Your task to perform on an android device: uninstall "VLC for Android" Image 0: 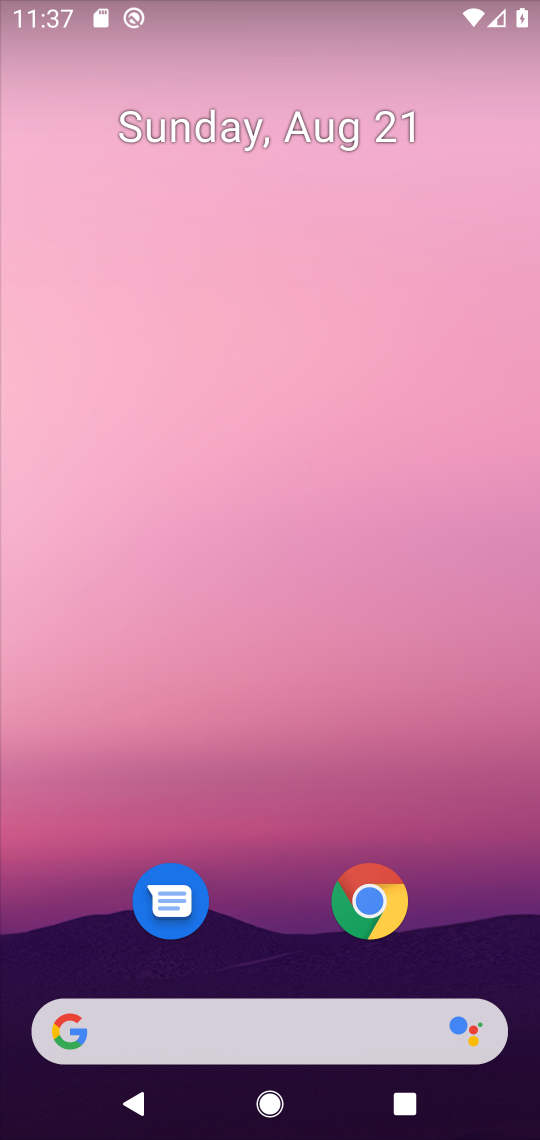
Step 0: drag from (254, 960) to (301, 54)
Your task to perform on an android device: uninstall "VLC for Android" Image 1: 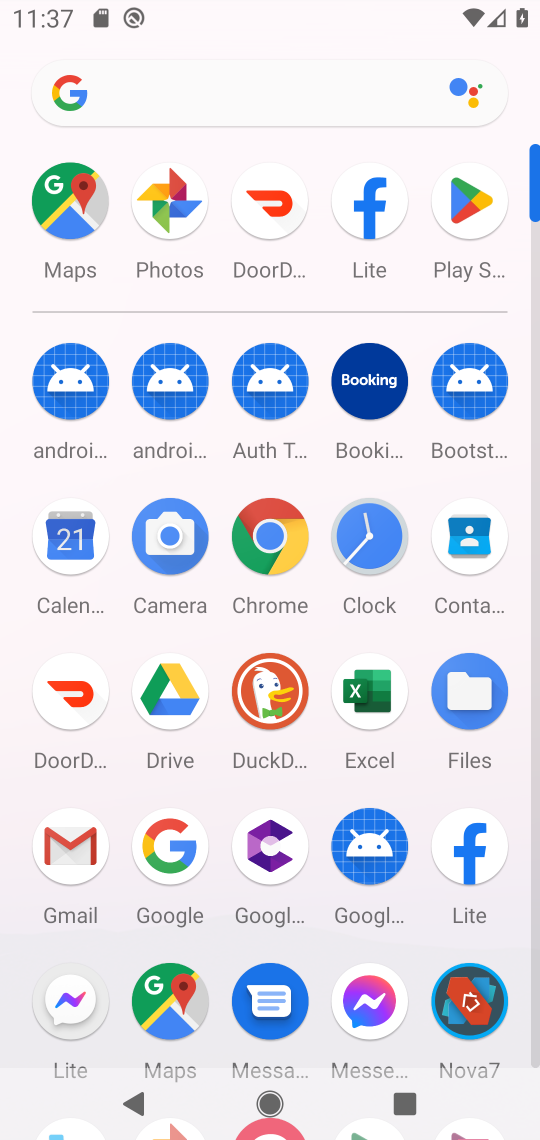
Step 1: click (459, 228)
Your task to perform on an android device: uninstall "VLC for Android" Image 2: 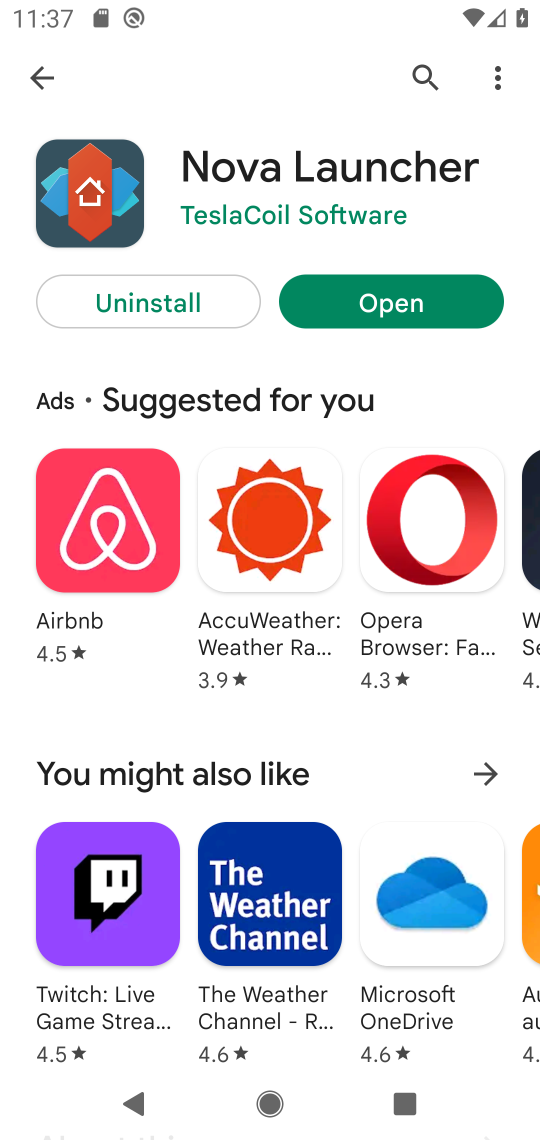
Step 2: click (414, 79)
Your task to perform on an android device: uninstall "VLC for Android" Image 3: 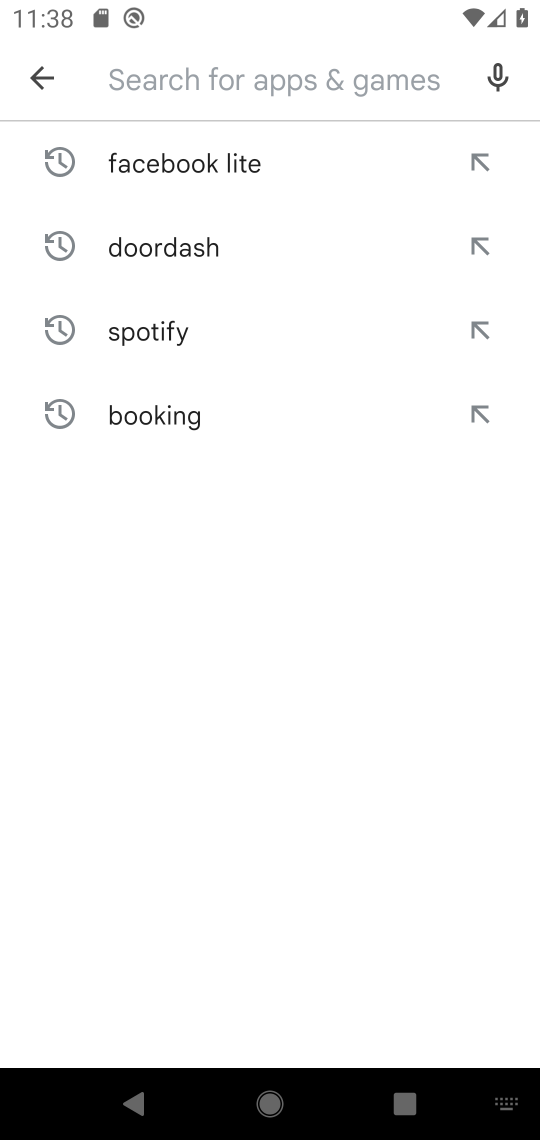
Step 3: type "vlc"
Your task to perform on an android device: uninstall "VLC for Android" Image 4: 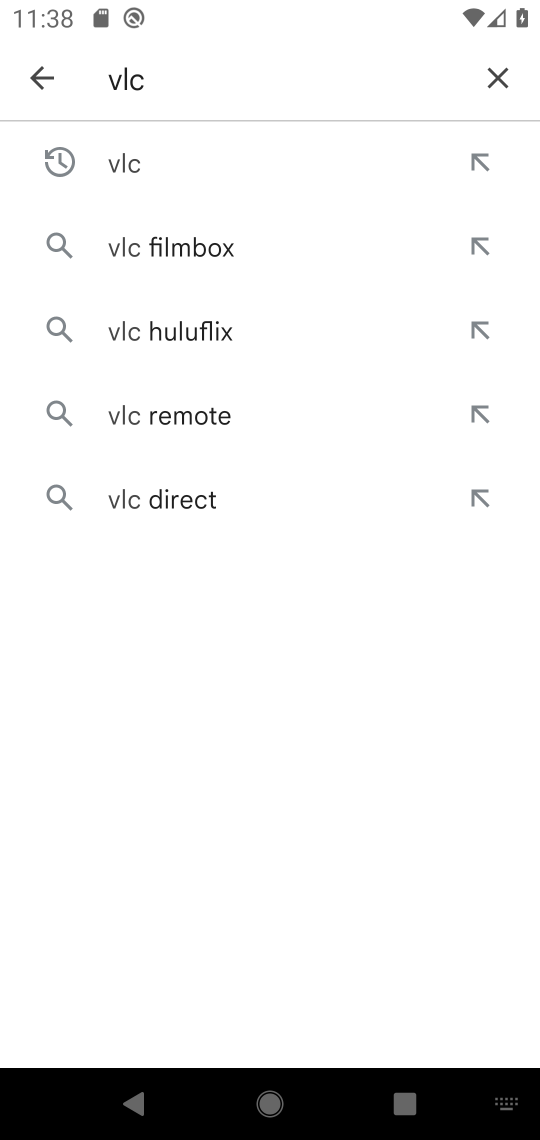
Step 4: click (151, 146)
Your task to perform on an android device: uninstall "VLC for Android" Image 5: 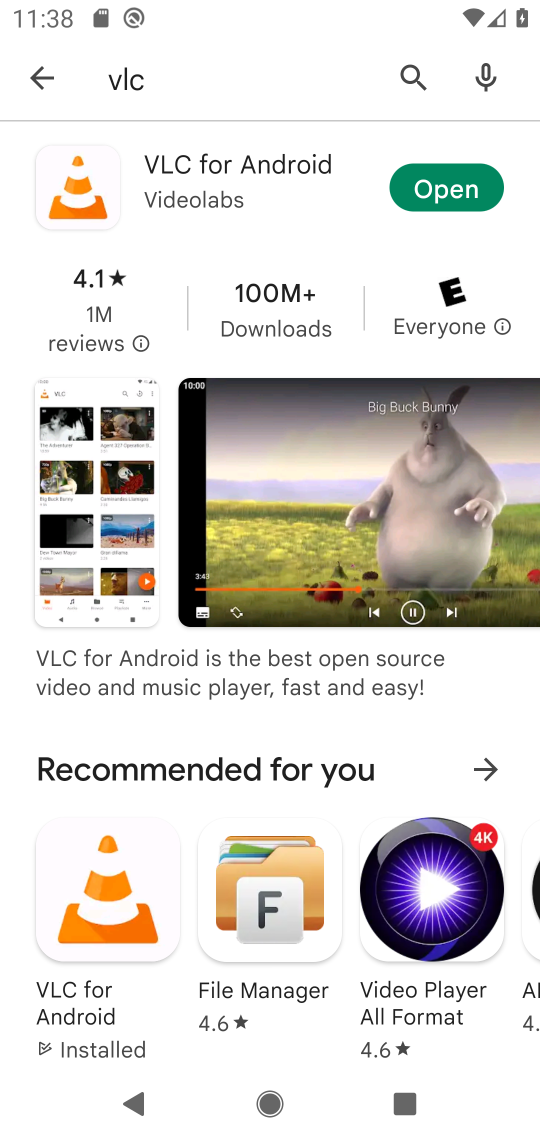
Step 5: click (454, 185)
Your task to perform on an android device: uninstall "VLC for Android" Image 6: 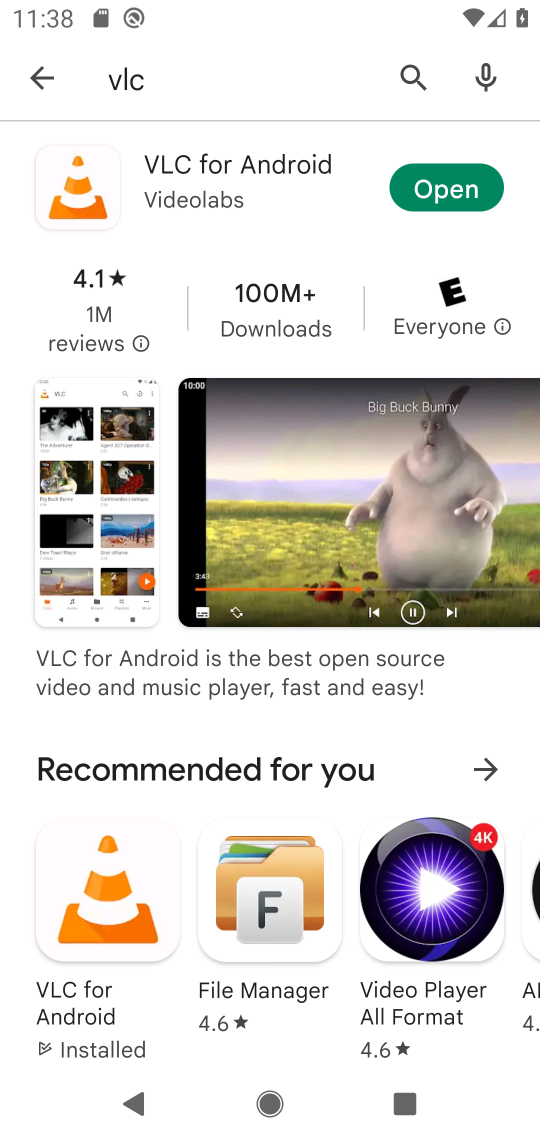
Step 6: task complete